Your task to perform on an android device: turn pop-ups off in chrome Image 0: 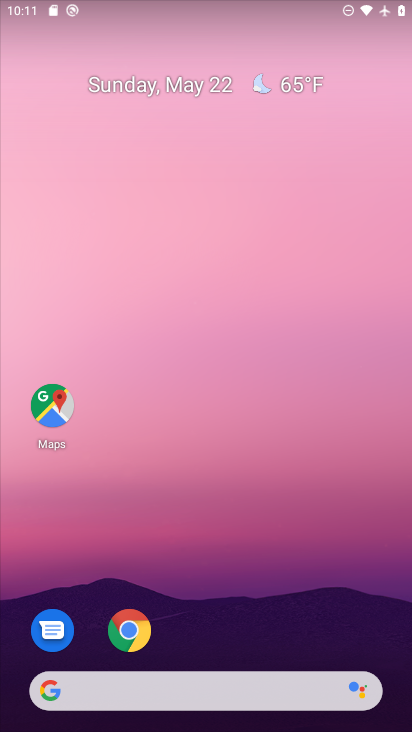
Step 0: press home button
Your task to perform on an android device: turn pop-ups off in chrome Image 1: 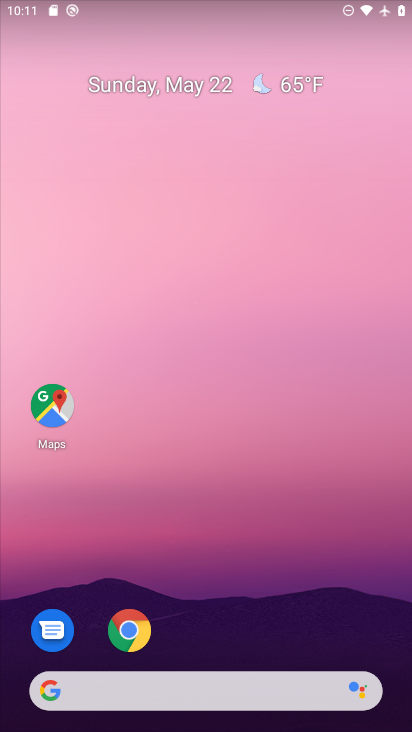
Step 1: click (131, 630)
Your task to perform on an android device: turn pop-ups off in chrome Image 2: 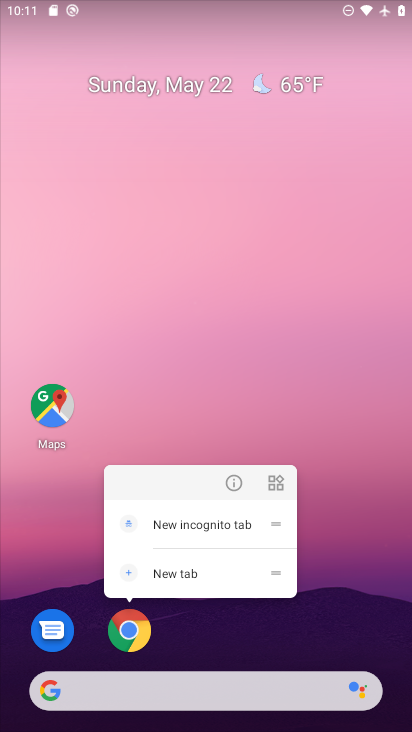
Step 2: click (139, 637)
Your task to perform on an android device: turn pop-ups off in chrome Image 3: 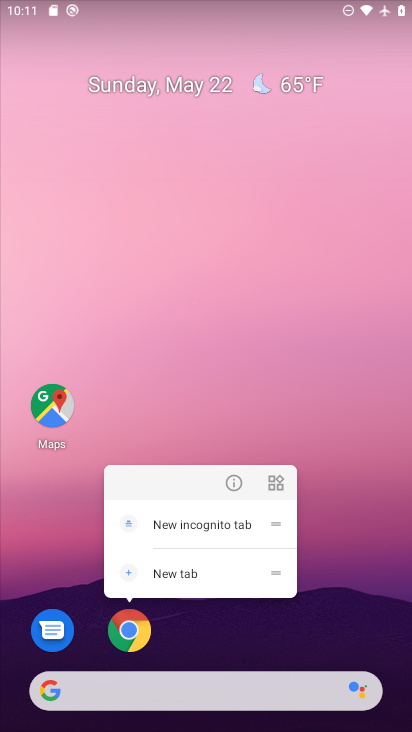
Step 3: click (132, 638)
Your task to perform on an android device: turn pop-ups off in chrome Image 4: 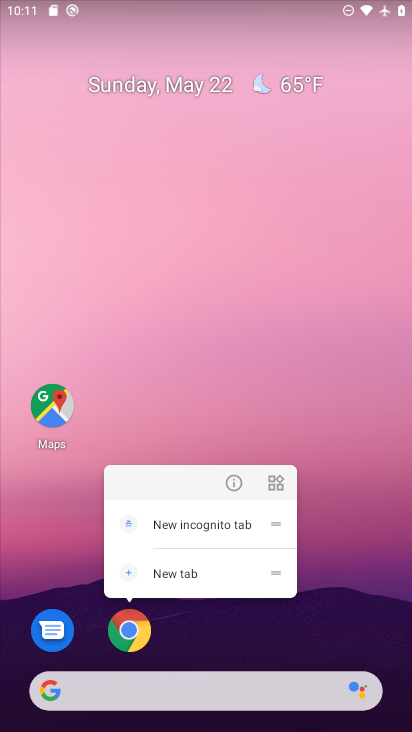
Step 4: click (135, 630)
Your task to perform on an android device: turn pop-ups off in chrome Image 5: 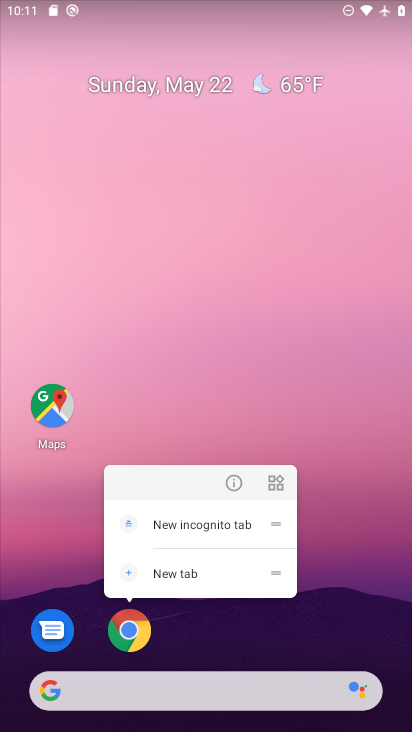
Step 5: click (132, 633)
Your task to perform on an android device: turn pop-ups off in chrome Image 6: 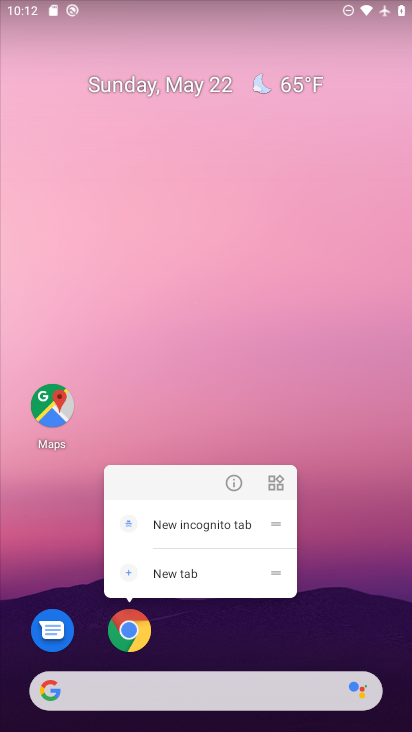
Step 6: click (126, 650)
Your task to perform on an android device: turn pop-ups off in chrome Image 7: 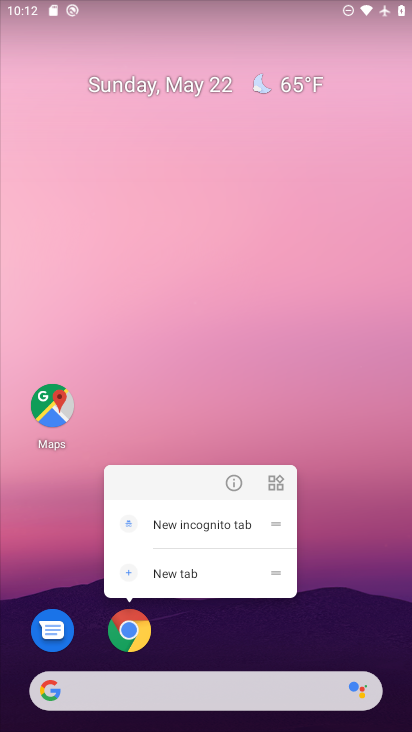
Step 7: drag from (160, 692) to (321, 147)
Your task to perform on an android device: turn pop-ups off in chrome Image 8: 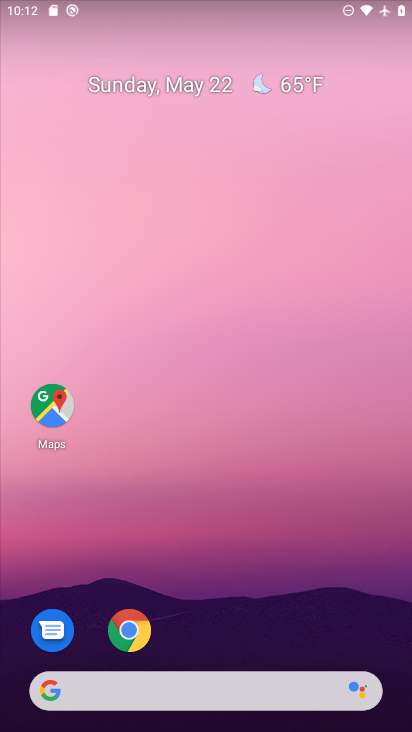
Step 8: drag from (198, 686) to (323, 156)
Your task to perform on an android device: turn pop-ups off in chrome Image 9: 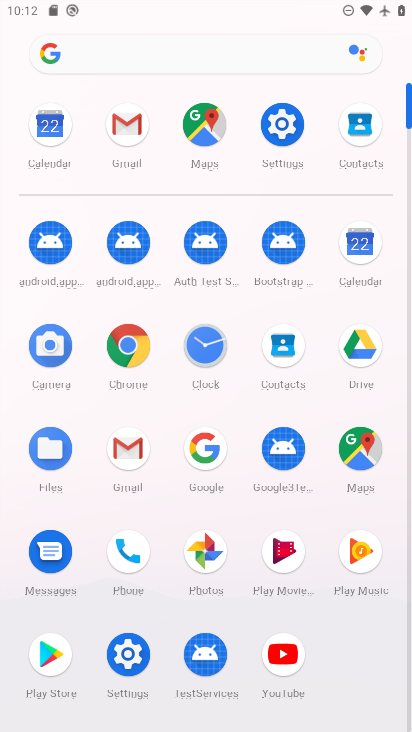
Step 9: click (123, 341)
Your task to perform on an android device: turn pop-ups off in chrome Image 10: 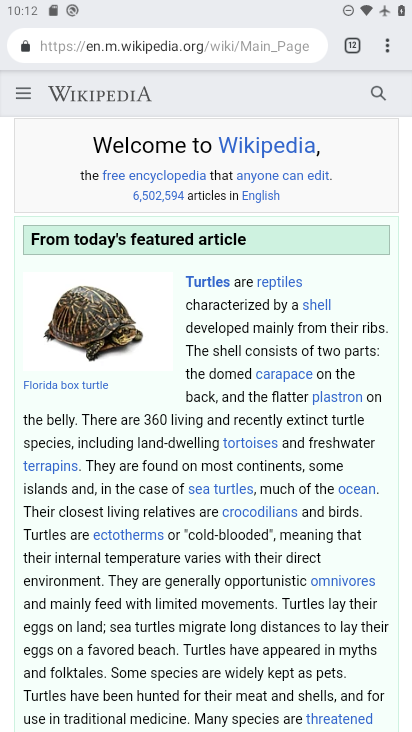
Step 10: drag from (389, 53) to (245, 555)
Your task to perform on an android device: turn pop-ups off in chrome Image 11: 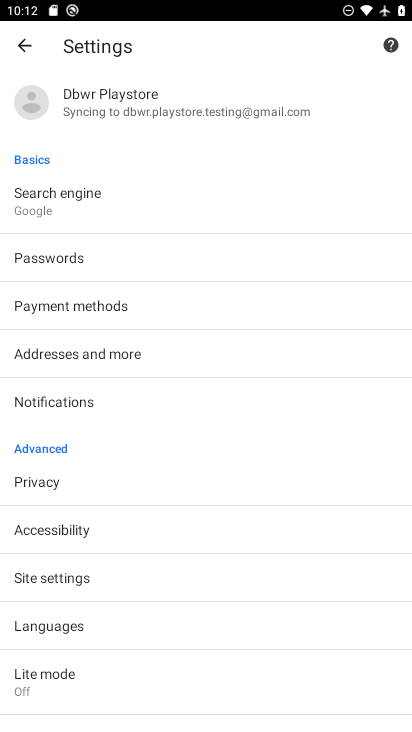
Step 11: drag from (129, 495) to (240, 249)
Your task to perform on an android device: turn pop-ups off in chrome Image 12: 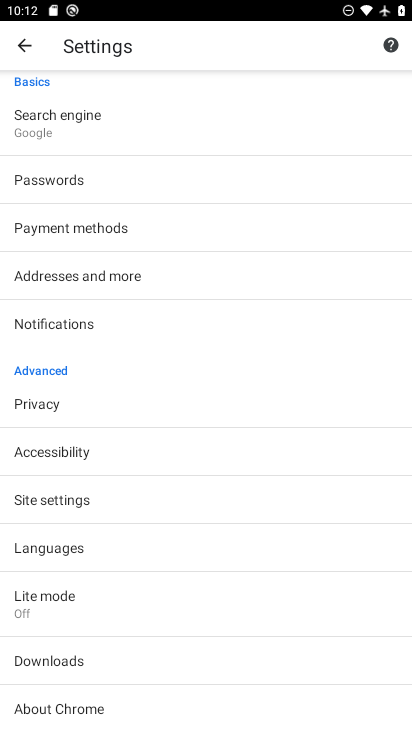
Step 12: click (118, 498)
Your task to perform on an android device: turn pop-ups off in chrome Image 13: 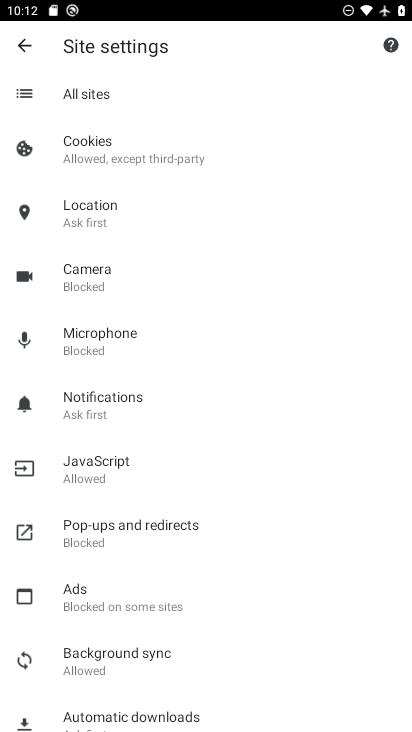
Step 13: click (138, 529)
Your task to perform on an android device: turn pop-ups off in chrome Image 14: 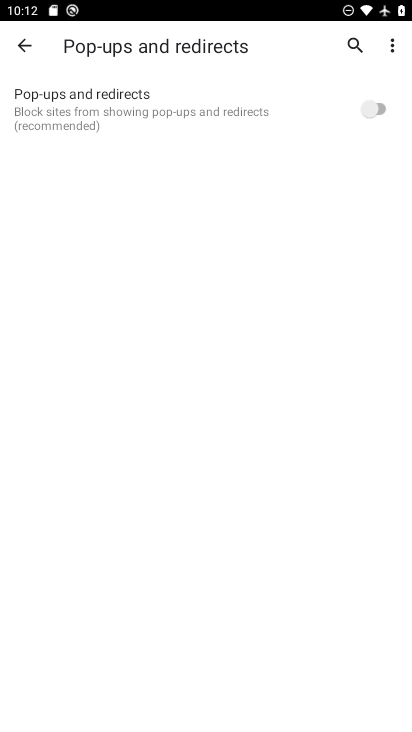
Step 14: task complete